Your task to perform on an android device: Go to sound settings Image 0: 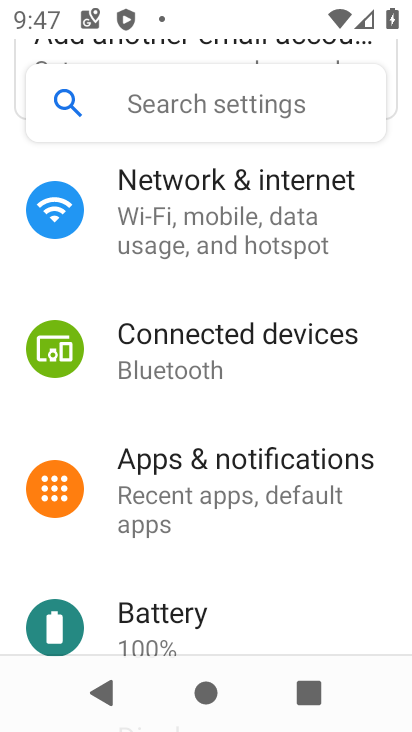
Step 0: drag from (234, 631) to (306, 133)
Your task to perform on an android device: Go to sound settings Image 1: 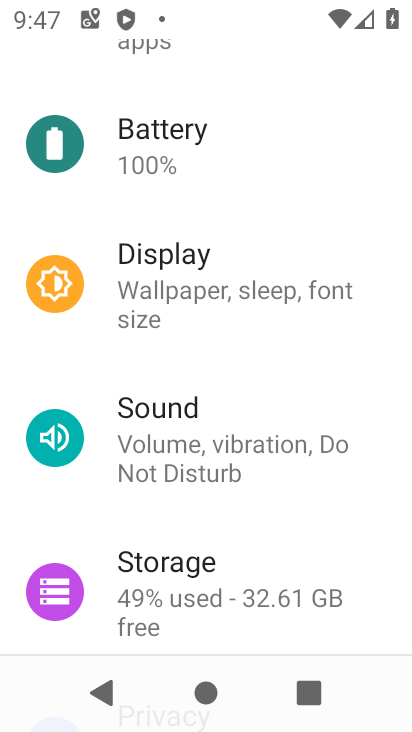
Step 1: click (206, 450)
Your task to perform on an android device: Go to sound settings Image 2: 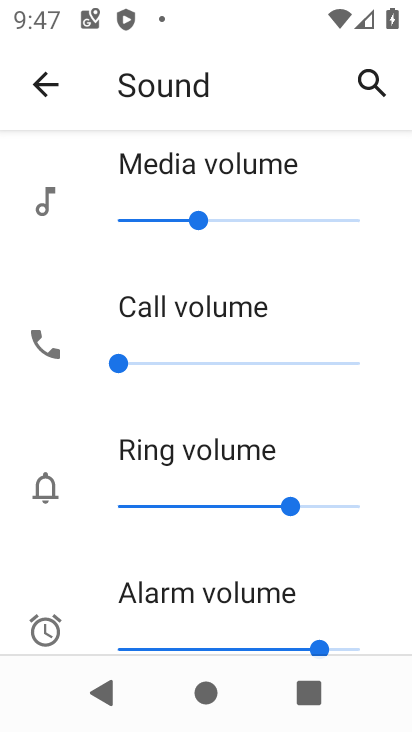
Step 2: drag from (261, 640) to (268, 169)
Your task to perform on an android device: Go to sound settings Image 3: 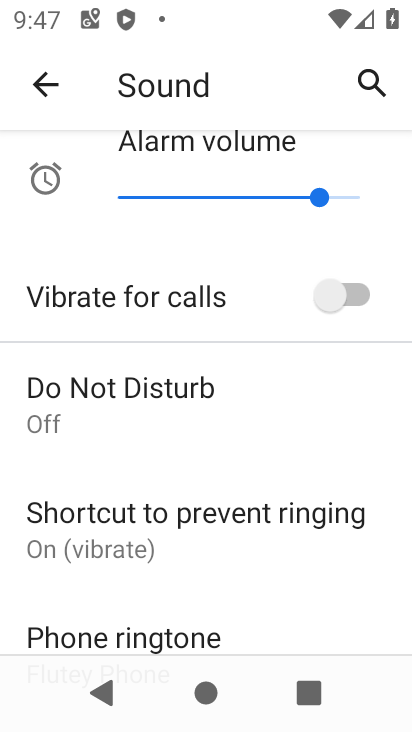
Step 3: drag from (197, 574) to (175, 188)
Your task to perform on an android device: Go to sound settings Image 4: 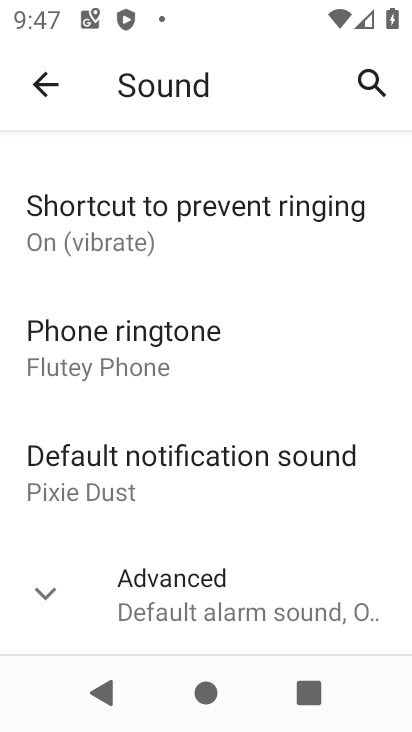
Step 4: click (142, 578)
Your task to perform on an android device: Go to sound settings Image 5: 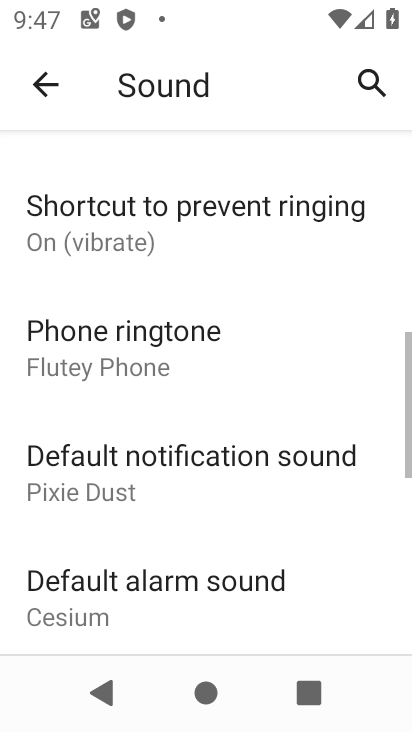
Step 5: task complete